Your task to perform on an android device: Search for vegetarian restaurants on Maps Image 0: 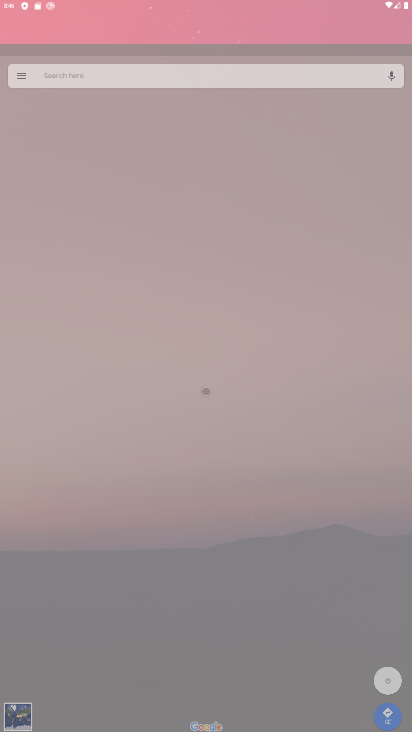
Step 0: drag from (336, 210) to (170, 126)
Your task to perform on an android device: Search for vegetarian restaurants on Maps Image 1: 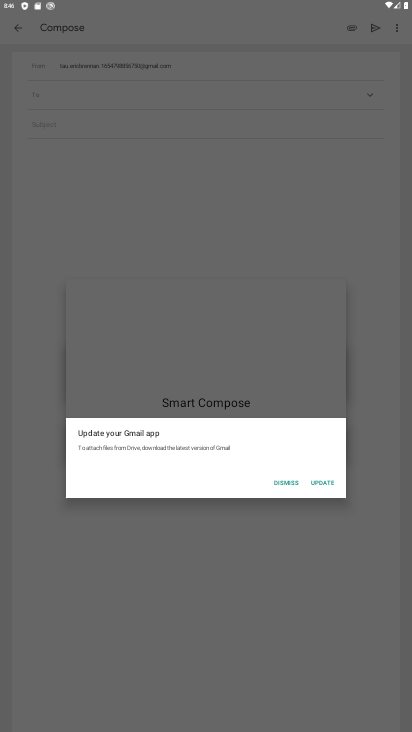
Step 1: press home button
Your task to perform on an android device: Search for vegetarian restaurants on Maps Image 2: 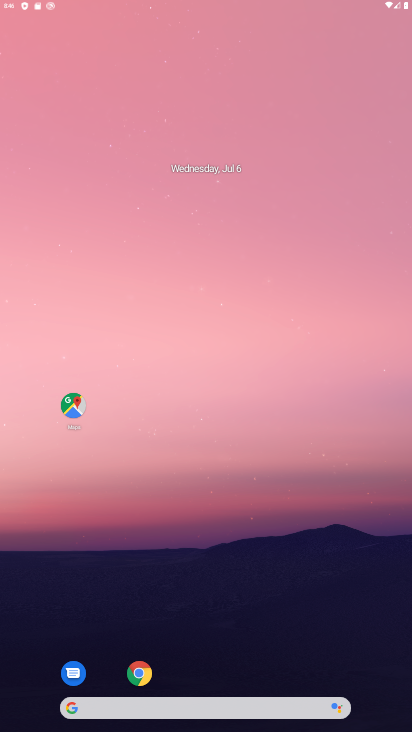
Step 2: press home button
Your task to perform on an android device: Search for vegetarian restaurants on Maps Image 3: 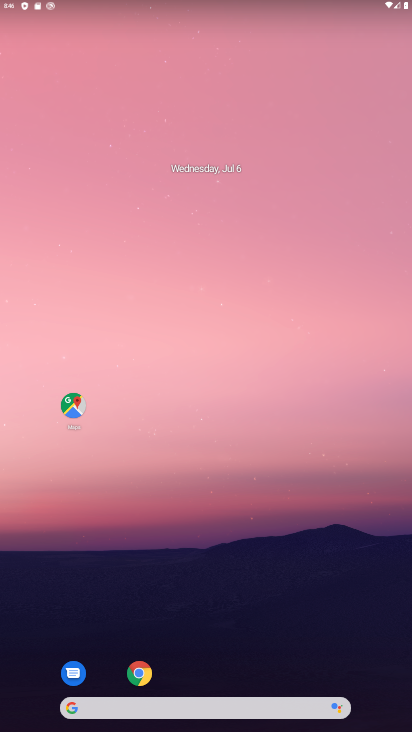
Step 3: drag from (300, 672) to (289, 216)
Your task to perform on an android device: Search for vegetarian restaurants on Maps Image 4: 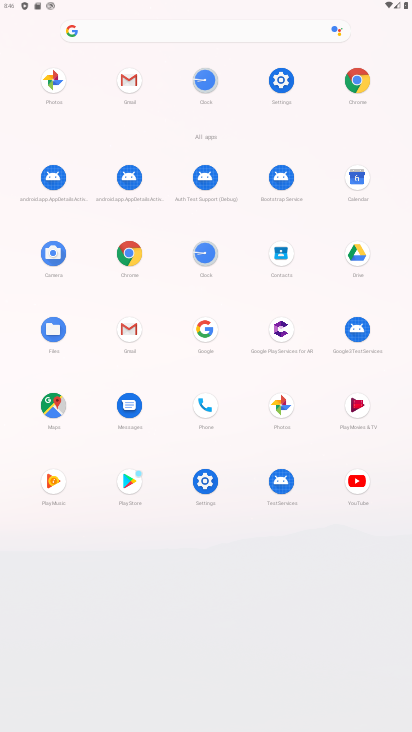
Step 4: click (46, 406)
Your task to perform on an android device: Search for vegetarian restaurants on Maps Image 5: 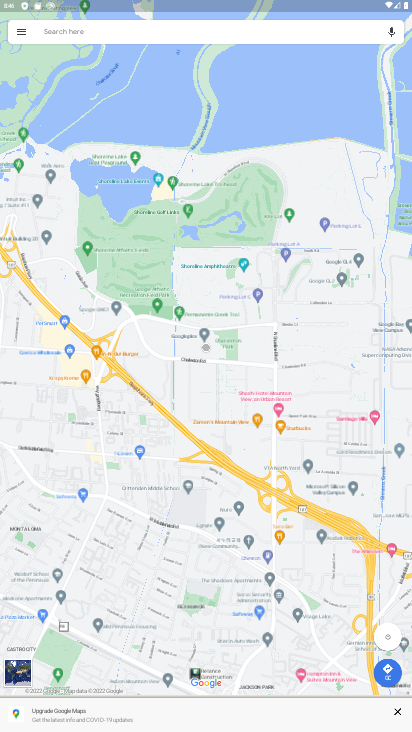
Step 5: click (212, 31)
Your task to perform on an android device: Search for vegetarian restaurants on Maps Image 6: 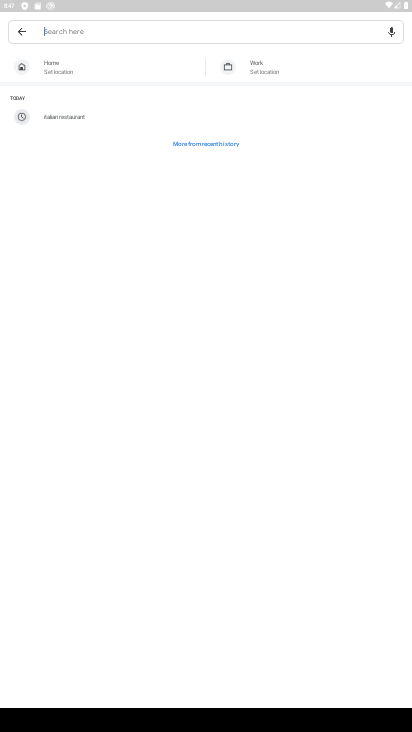
Step 6: type " vegetarian restaurants "
Your task to perform on an android device: Search for vegetarian restaurants on Maps Image 7: 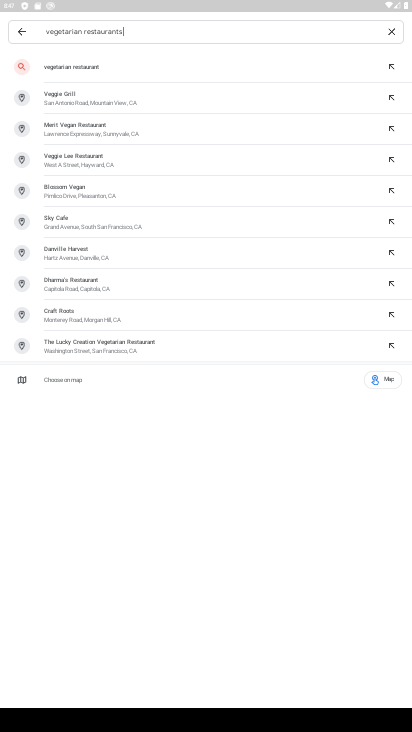
Step 7: click (133, 64)
Your task to perform on an android device: Search for vegetarian restaurants on Maps Image 8: 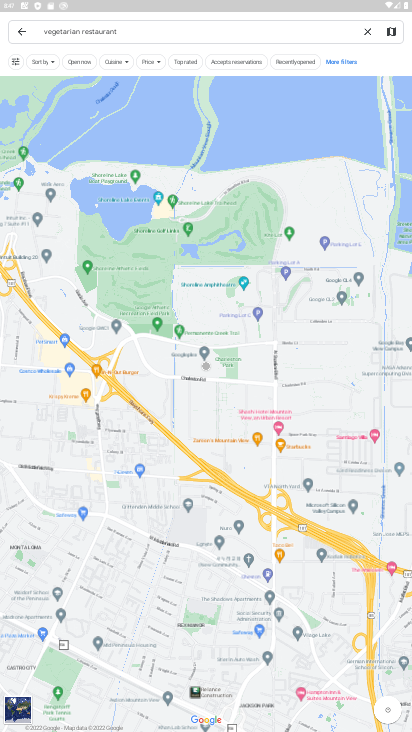
Step 8: task complete